Your task to perform on an android device: Search for a new blush Image 0: 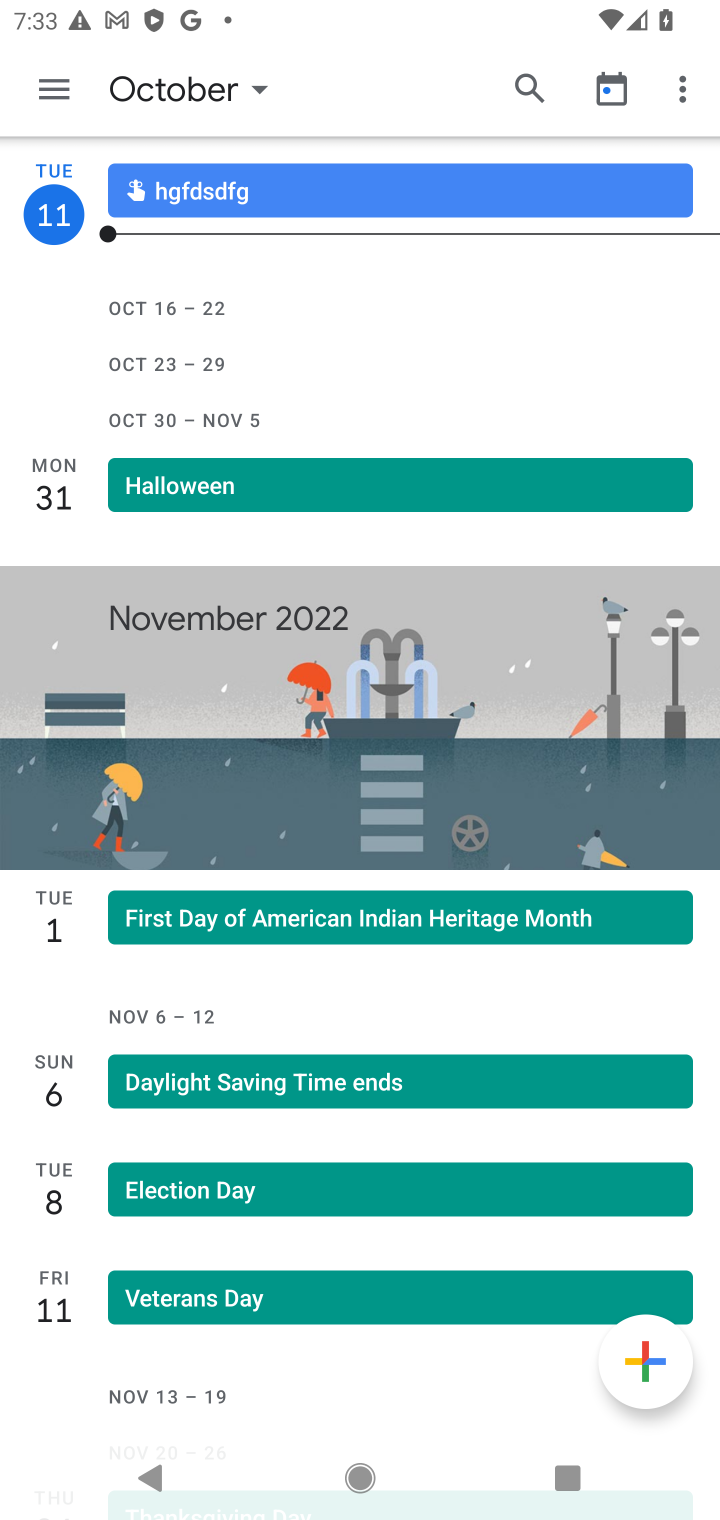
Step 0: press home button
Your task to perform on an android device: Search for a new blush Image 1: 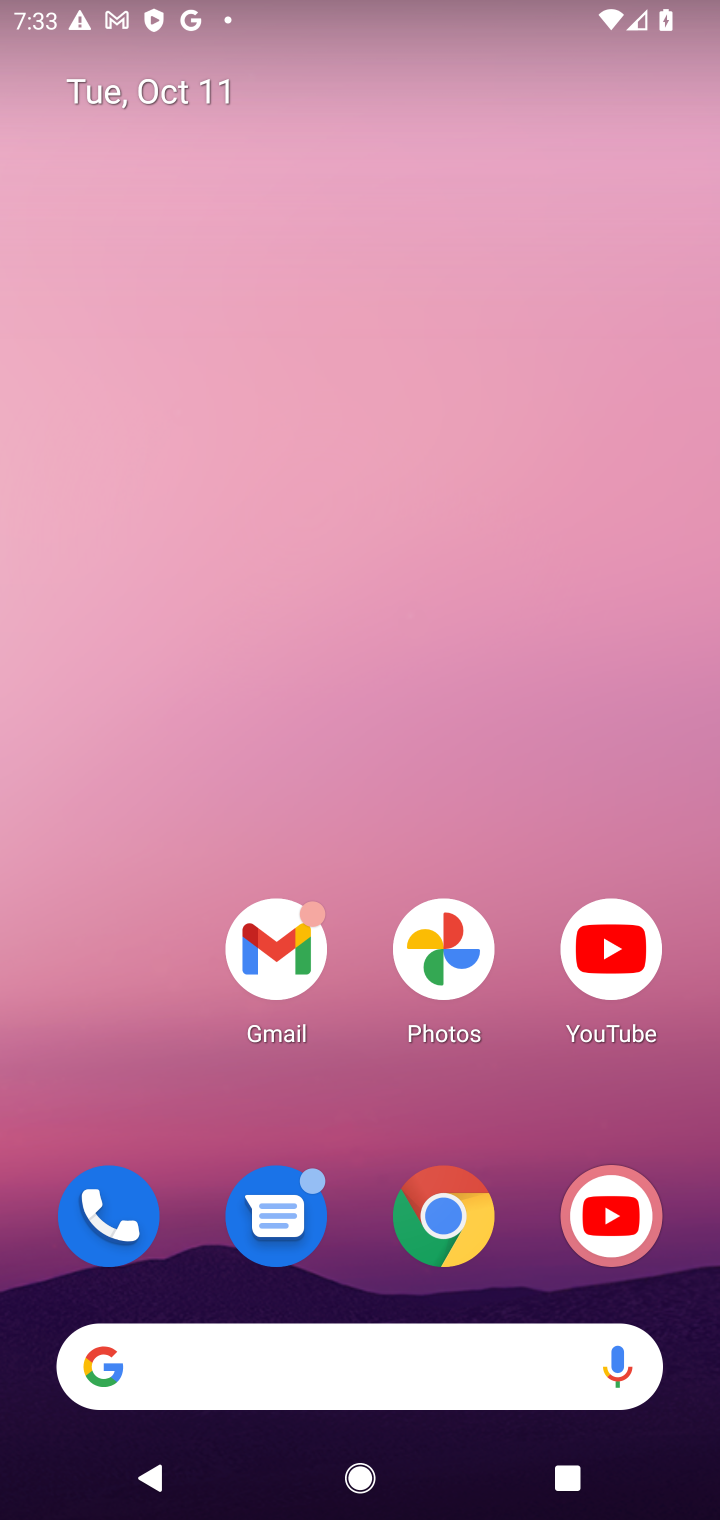
Step 1: click (405, 1254)
Your task to perform on an android device: Search for a new blush Image 2: 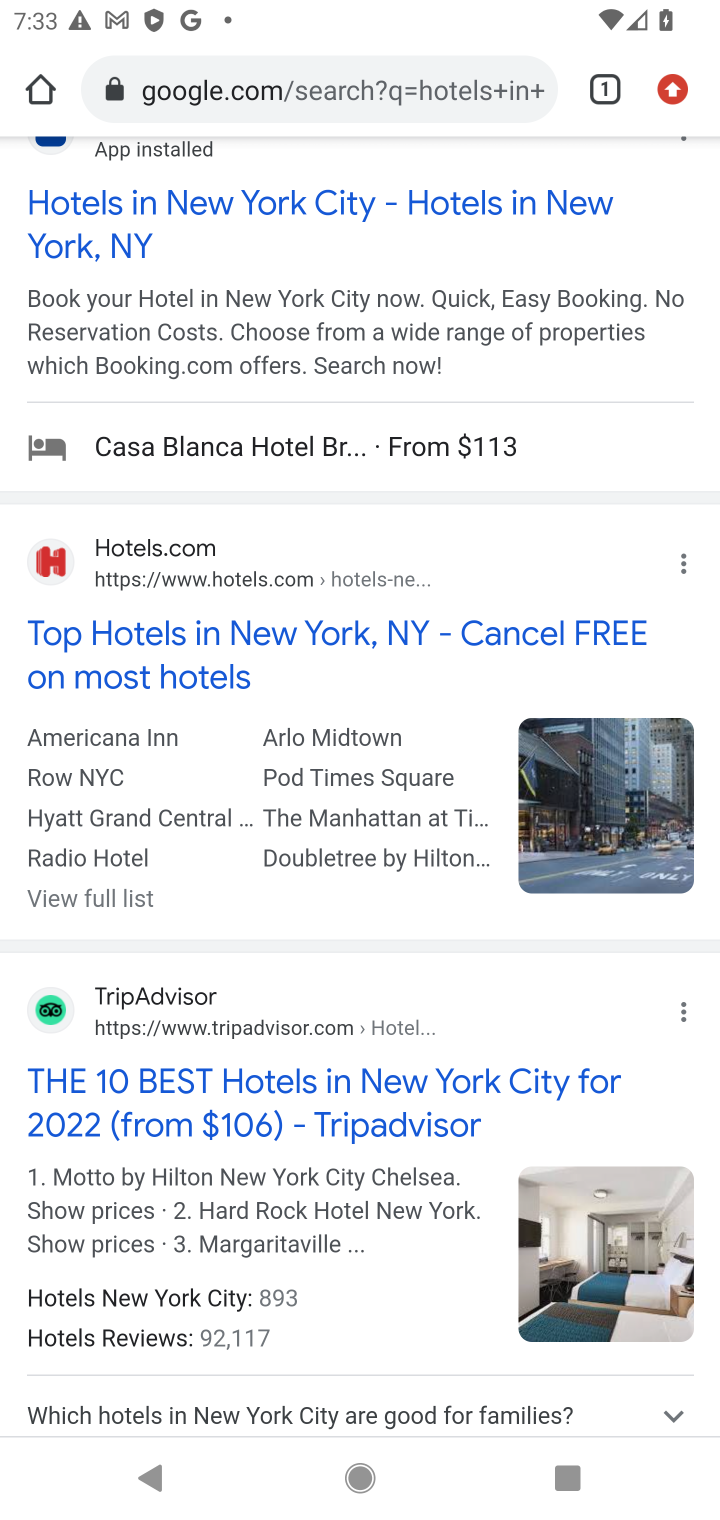
Step 2: click (322, 64)
Your task to perform on an android device: Search for a new blush Image 3: 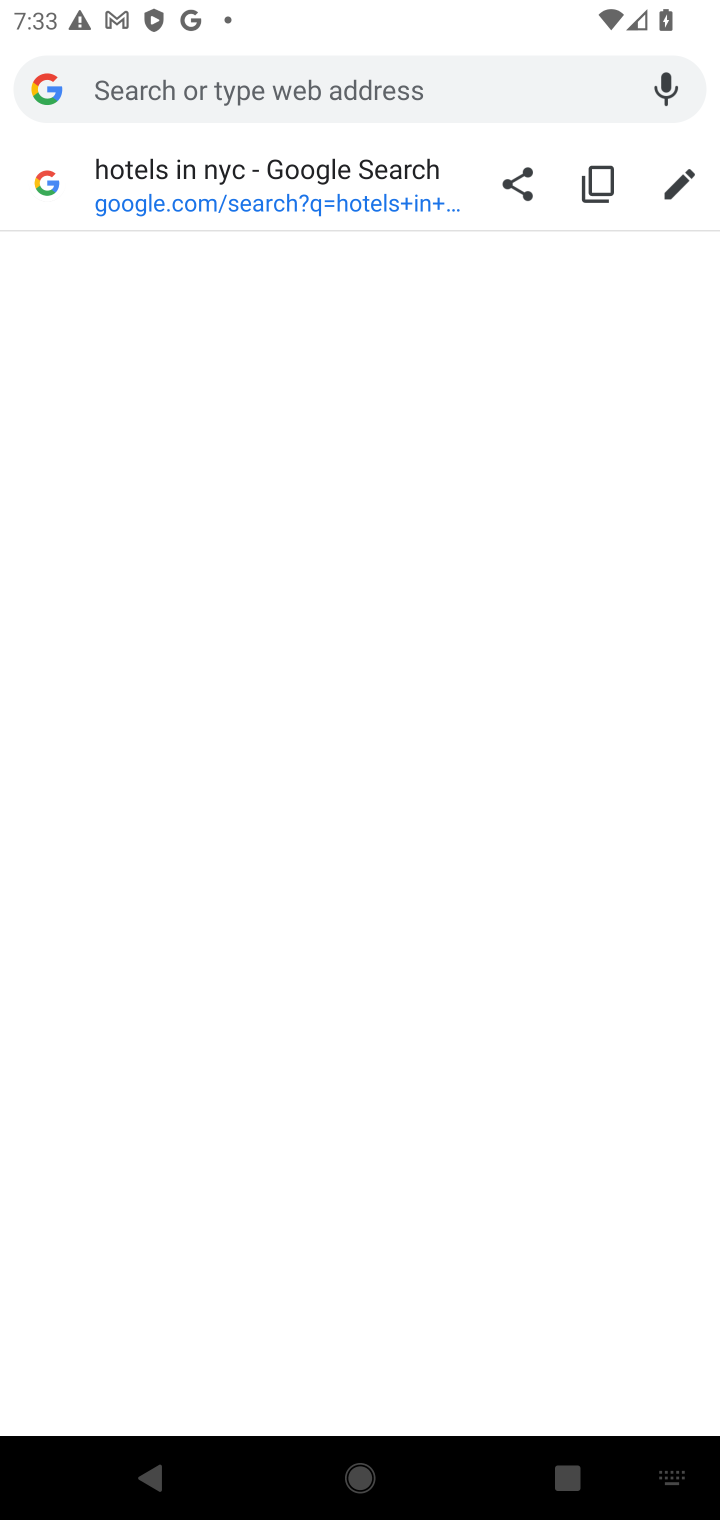
Step 3: type "new blush"
Your task to perform on an android device: Search for a new blush Image 4: 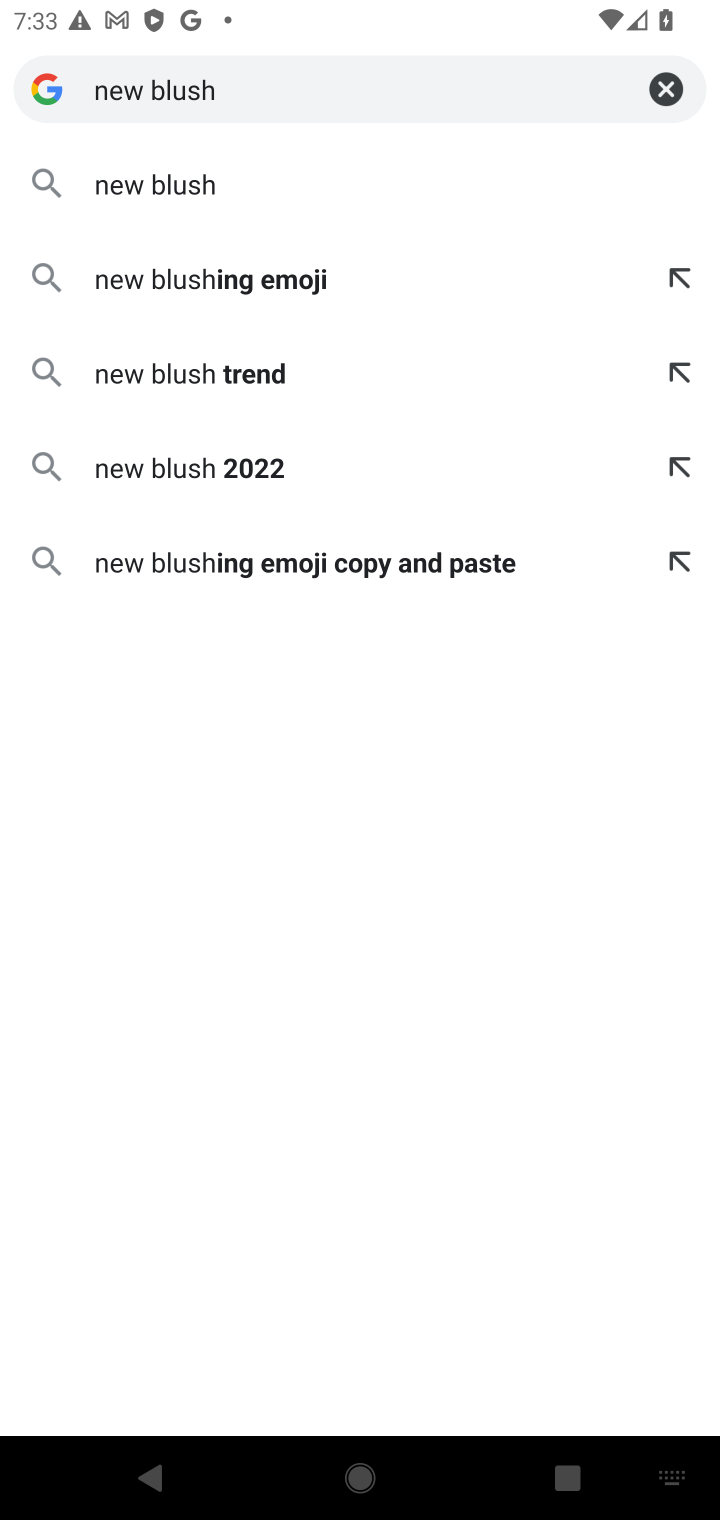
Step 4: click (319, 172)
Your task to perform on an android device: Search for a new blush Image 5: 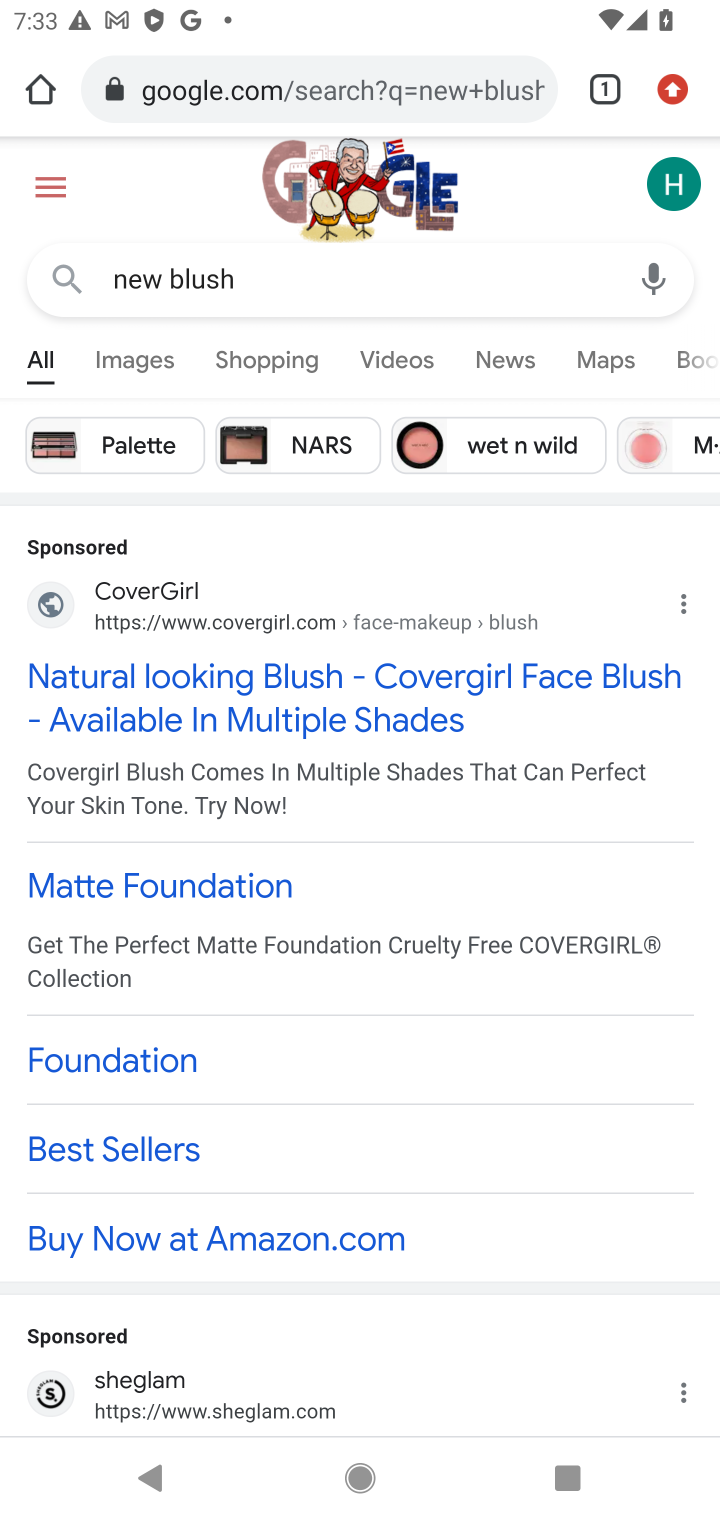
Step 5: task complete